Your task to perform on an android device: See recent photos Image 0: 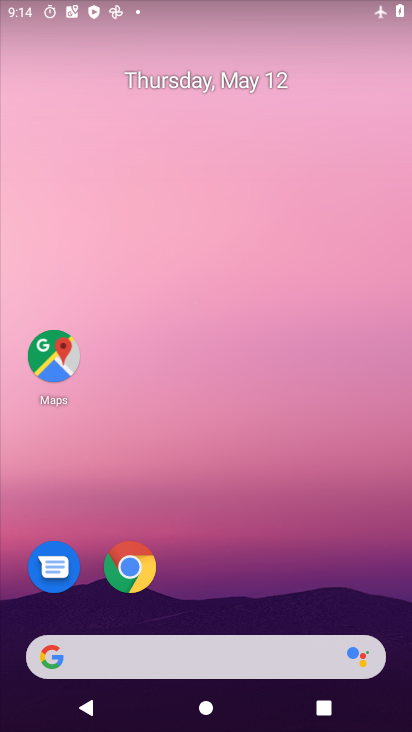
Step 0: drag from (190, 618) to (203, 181)
Your task to perform on an android device: See recent photos Image 1: 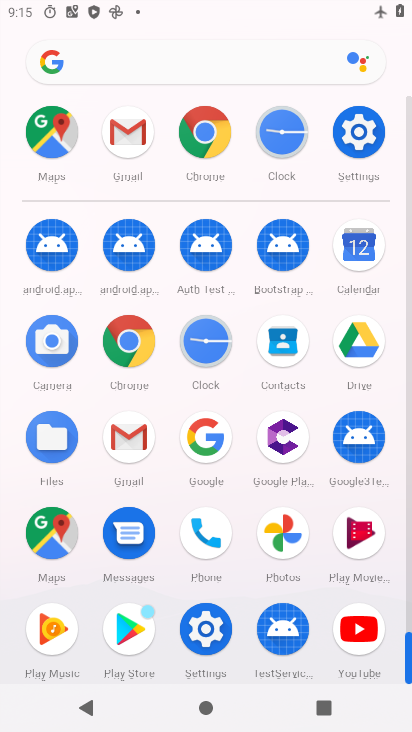
Step 1: click (282, 545)
Your task to perform on an android device: See recent photos Image 2: 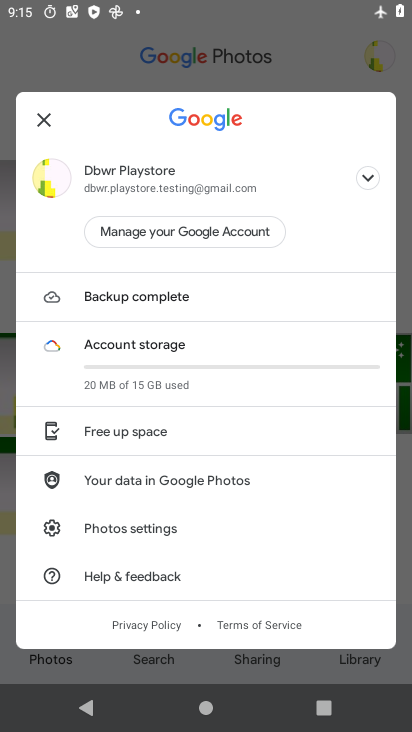
Step 2: task complete